Your task to perform on an android device: Show me the alarms in the clock app Image 0: 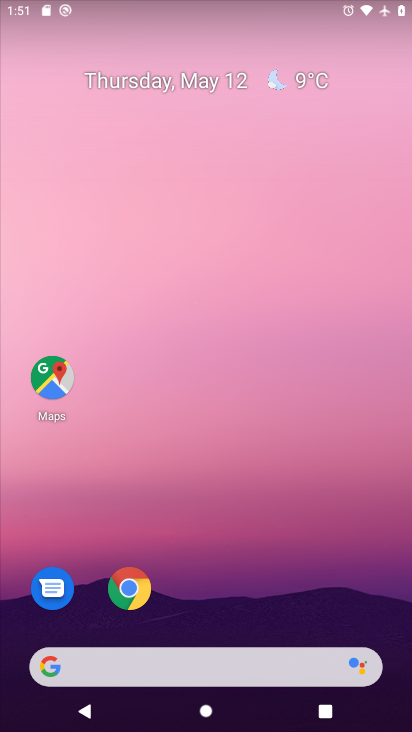
Step 0: drag from (250, 554) to (256, 1)
Your task to perform on an android device: Show me the alarms in the clock app Image 1: 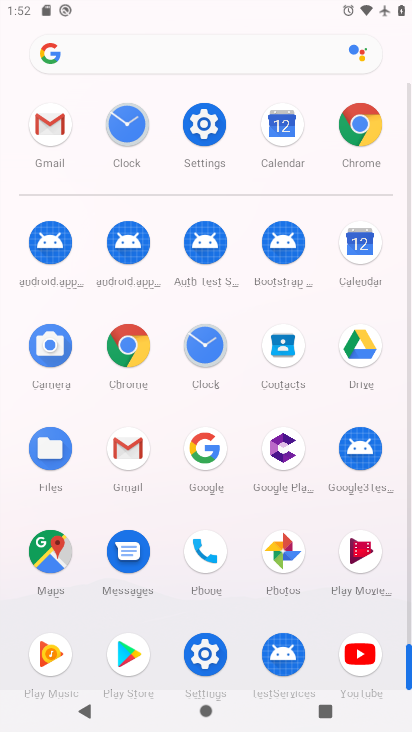
Step 1: click (205, 352)
Your task to perform on an android device: Show me the alarms in the clock app Image 2: 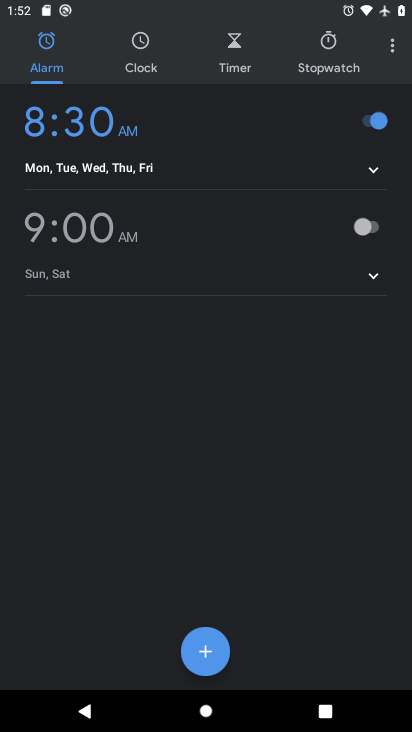
Step 2: click (76, 149)
Your task to perform on an android device: Show me the alarms in the clock app Image 3: 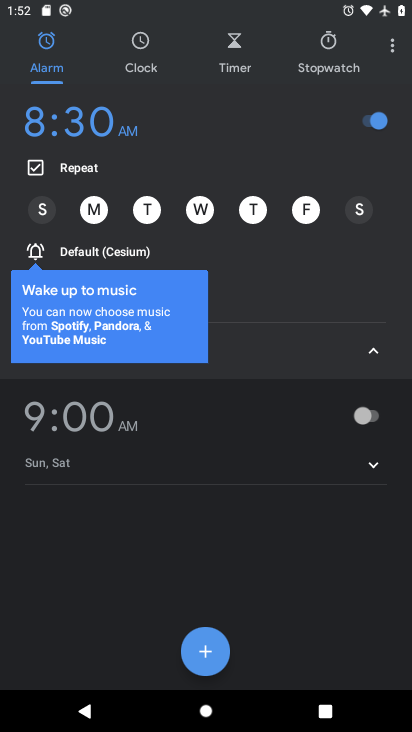
Step 3: click (68, 124)
Your task to perform on an android device: Show me the alarms in the clock app Image 4: 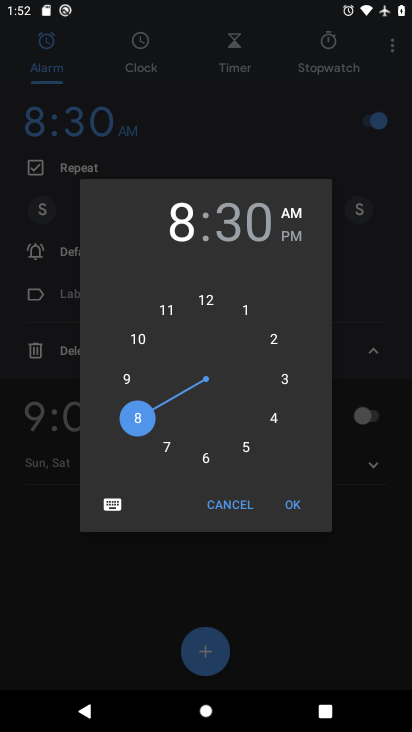
Step 4: task complete